Your task to perform on an android device: check the backup settings in the google photos Image 0: 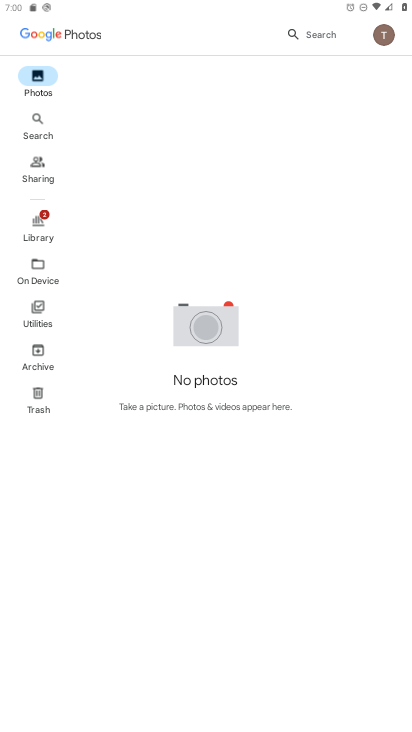
Step 0: press home button
Your task to perform on an android device: check the backup settings in the google photos Image 1: 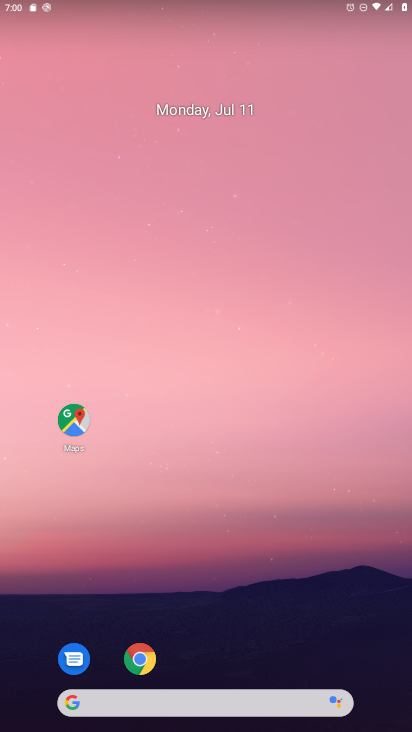
Step 1: drag from (376, 667) to (336, 142)
Your task to perform on an android device: check the backup settings in the google photos Image 2: 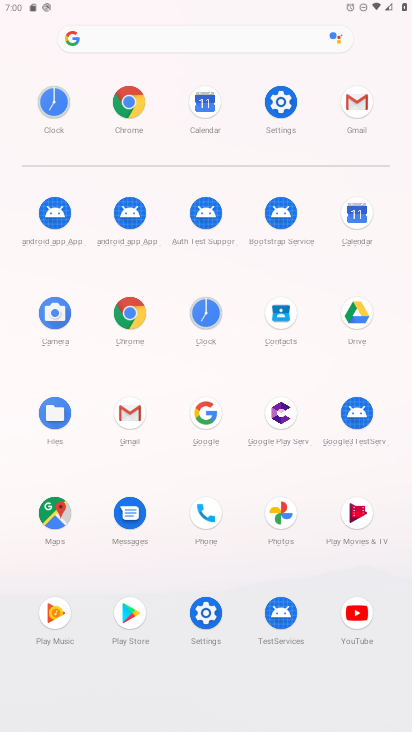
Step 2: click (282, 517)
Your task to perform on an android device: check the backup settings in the google photos Image 3: 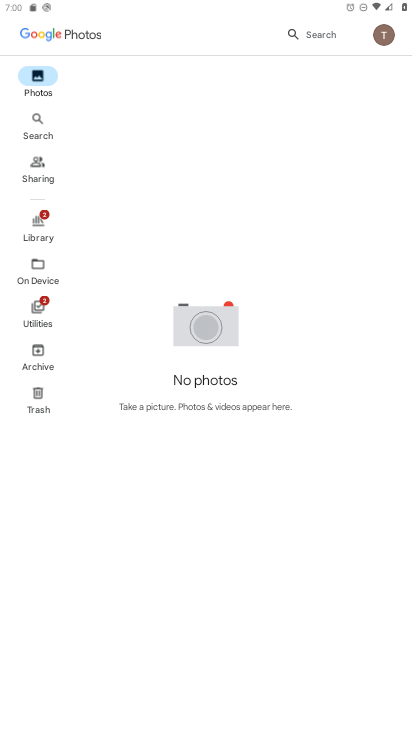
Step 3: click (384, 37)
Your task to perform on an android device: check the backup settings in the google photos Image 4: 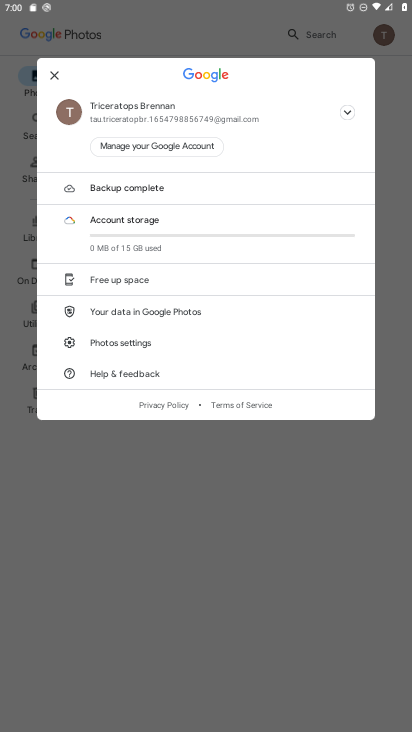
Step 4: click (127, 340)
Your task to perform on an android device: check the backup settings in the google photos Image 5: 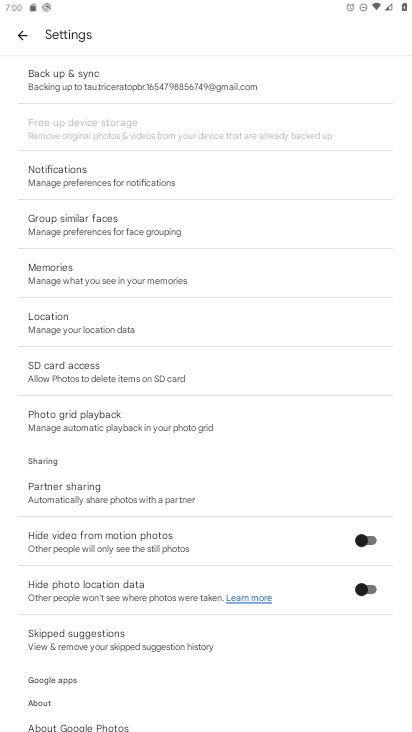
Step 5: click (57, 82)
Your task to perform on an android device: check the backup settings in the google photos Image 6: 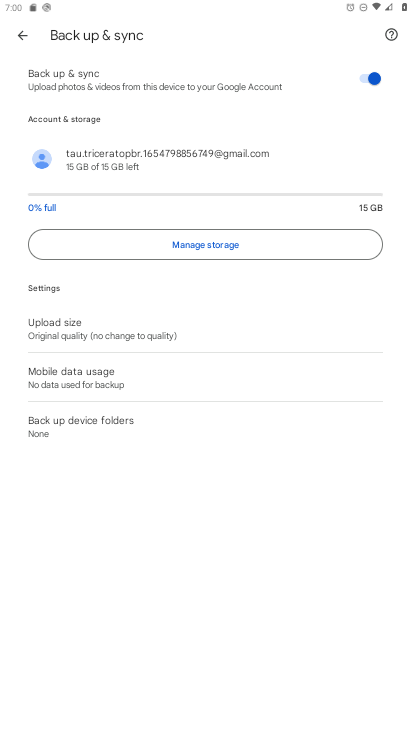
Step 6: task complete